Your task to perform on an android device: Do I have any events this weekend? Image 0: 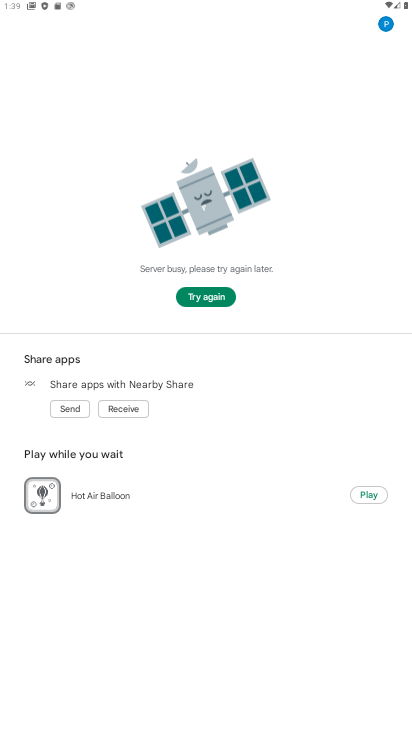
Step 0: press home button
Your task to perform on an android device: Do I have any events this weekend? Image 1: 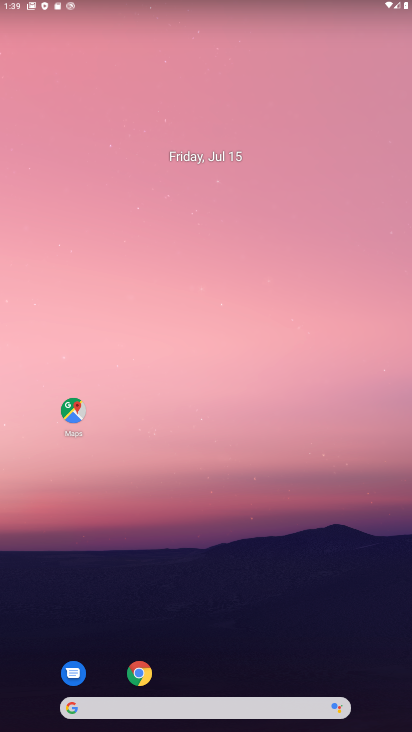
Step 1: drag from (386, 548) to (365, 250)
Your task to perform on an android device: Do I have any events this weekend? Image 2: 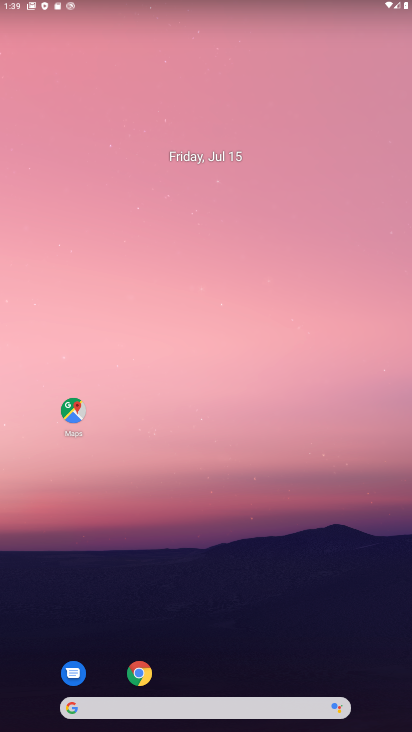
Step 2: drag from (385, 675) to (309, 113)
Your task to perform on an android device: Do I have any events this weekend? Image 3: 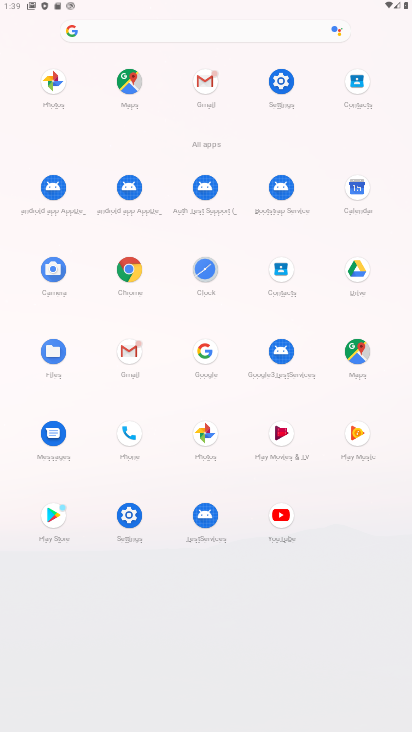
Step 3: click (350, 185)
Your task to perform on an android device: Do I have any events this weekend? Image 4: 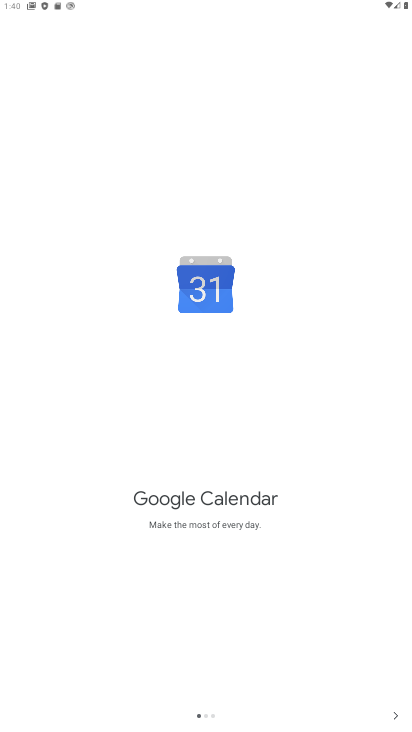
Step 4: click (393, 714)
Your task to perform on an android device: Do I have any events this weekend? Image 5: 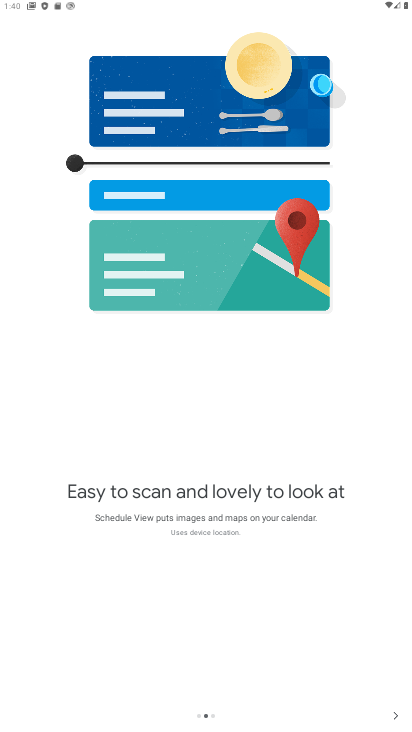
Step 5: click (393, 714)
Your task to perform on an android device: Do I have any events this weekend? Image 6: 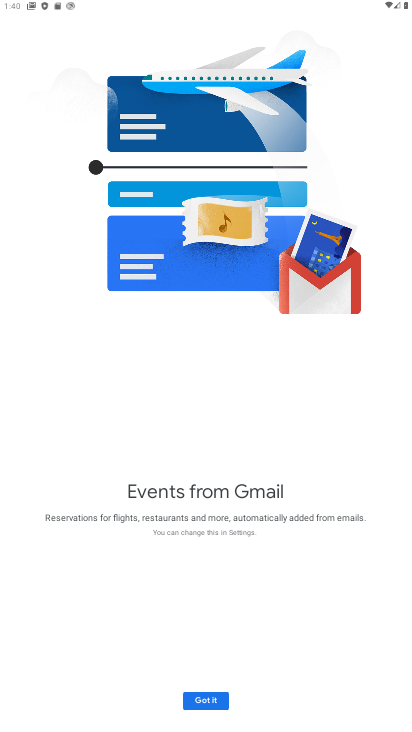
Step 6: click (223, 700)
Your task to perform on an android device: Do I have any events this weekend? Image 7: 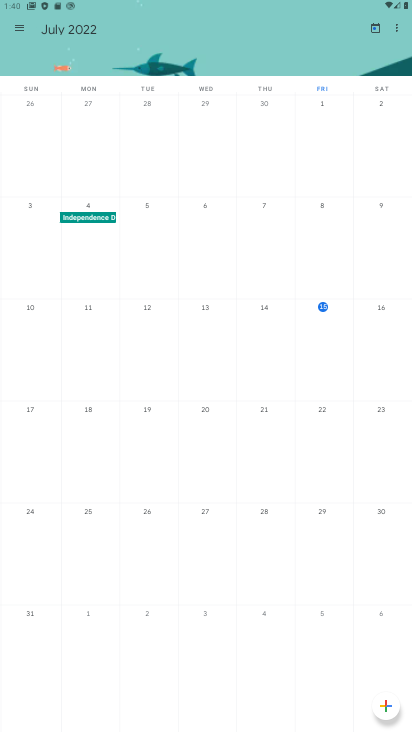
Step 7: click (16, 31)
Your task to perform on an android device: Do I have any events this weekend? Image 8: 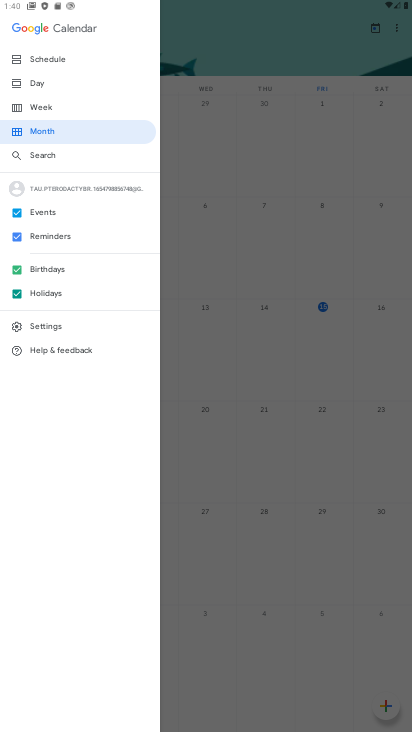
Step 8: click (41, 107)
Your task to perform on an android device: Do I have any events this weekend? Image 9: 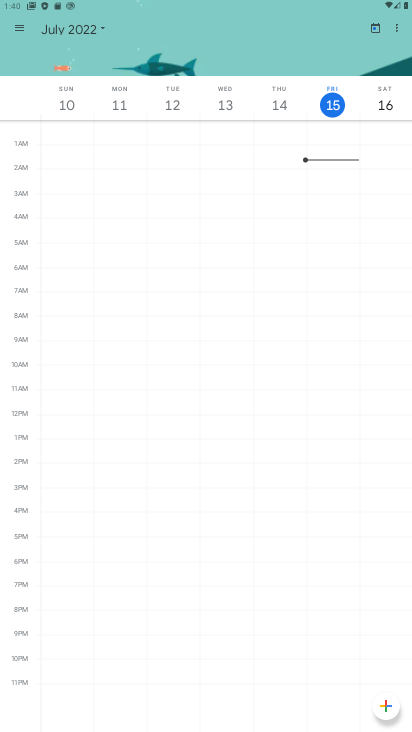
Step 9: click (16, 22)
Your task to perform on an android device: Do I have any events this weekend? Image 10: 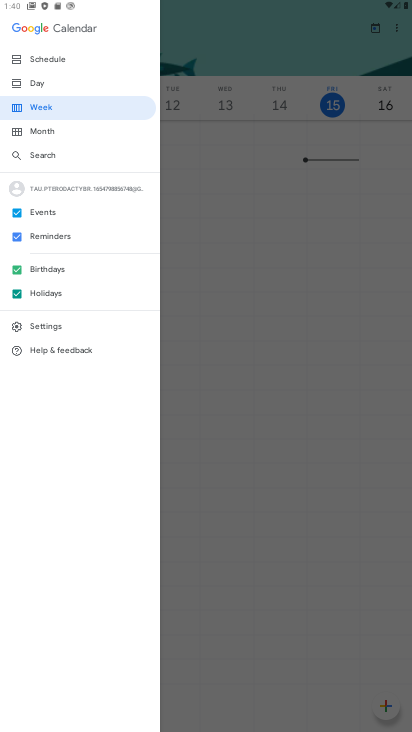
Step 10: click (49, 52)
Your task to perform on an android device: Do I have any events this weekend? Image 11: 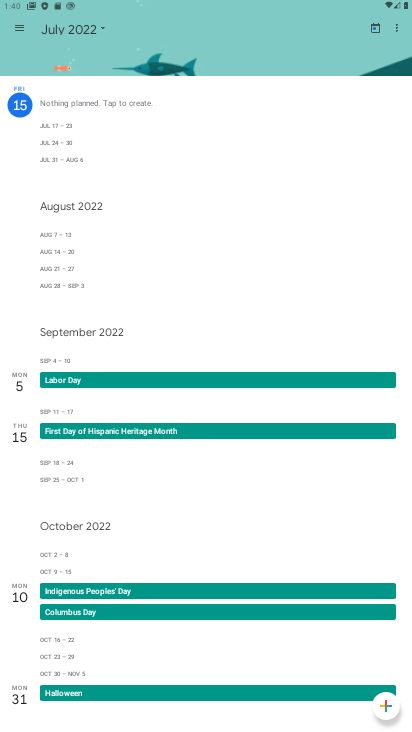
Step 11: task complete